Your task to perform on an android device: set default search engine in the chrome app Image 0: 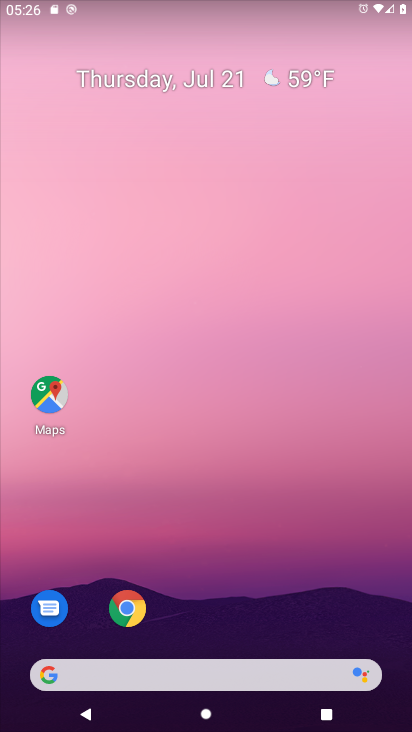
Step 0: drag from (258, 606) to (341, 0)
Your task to perform on an android device: set default search engine in the chrome app Image 1: 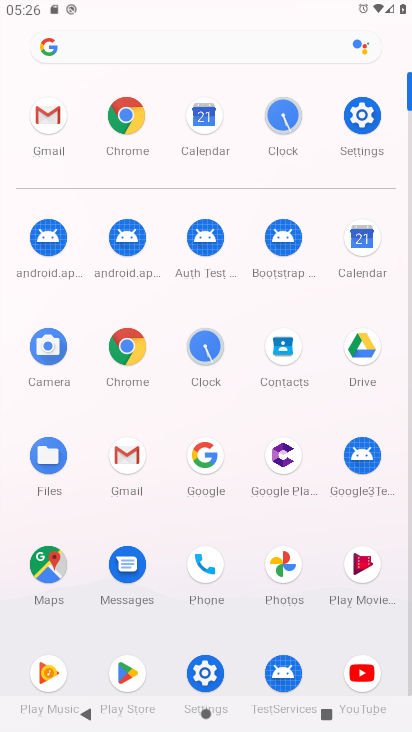
Step 1: click (126, 343)
Your task to perform on an android device: set default search engine in the chrome app Image 2: 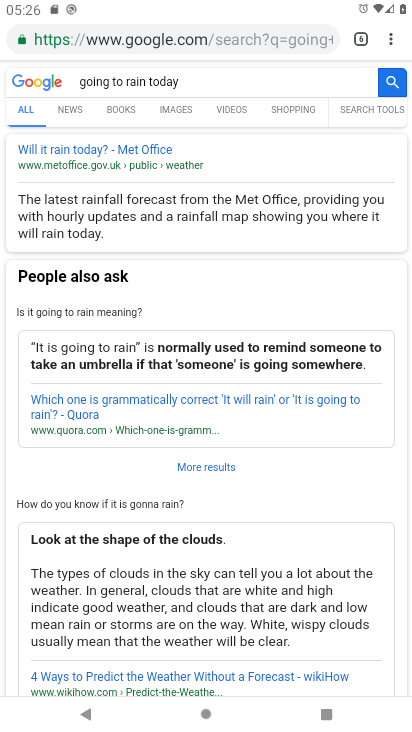
Step 2: drag from (387, 30) to (296, 444)
Your task to perform on an android device: set default search engine in the chrome app Image 3: 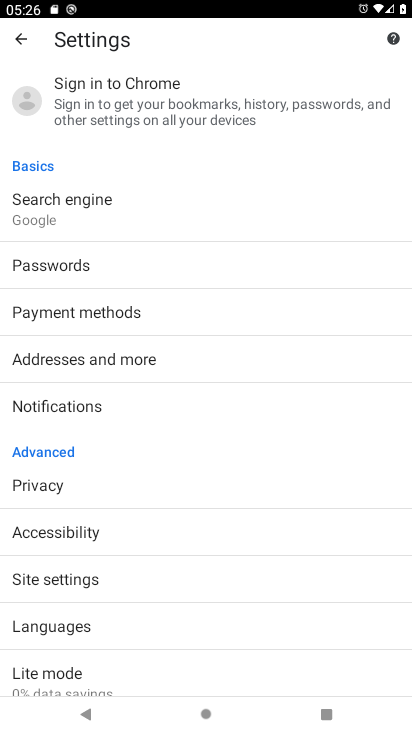
Step 3: click (93, 203)
Your task to perform on an android device: set default search engine in the chrome app Image 4: 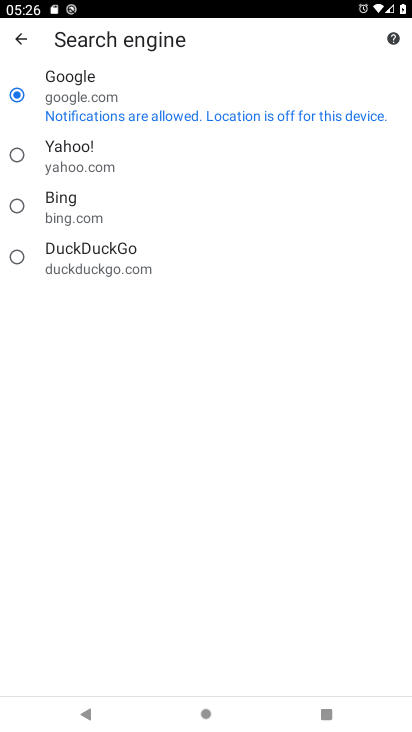
Step 4: task complete